Your task to perform on an android device: Open the calendar app, open the side menu, and click the "Day" option Image 0: 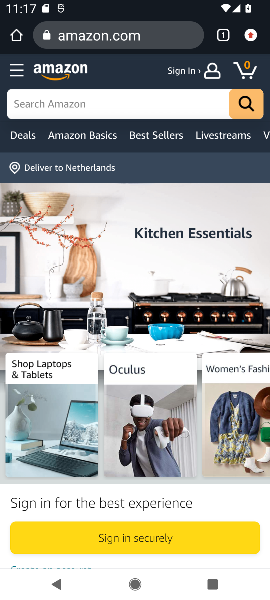
Step 0: press home button
Your task to perform on an android device: Open the calendar app, open the side menu, and click the "Day" option Image 1: 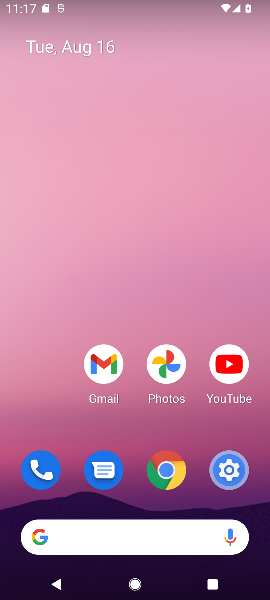
Step 1: drag from (45, 397) to (92, 16)
Your task to perform on an android device: Open the calendar app, open the side menu, and click the "Day" option Image 2: 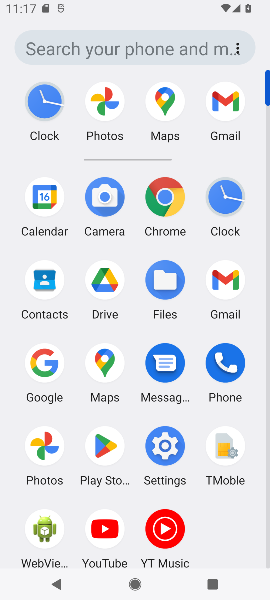
Step 2: click (48, 196)
Your task to perform on an android device: Open the calendar app, open the side menu, and click the "Day" option Image 3: 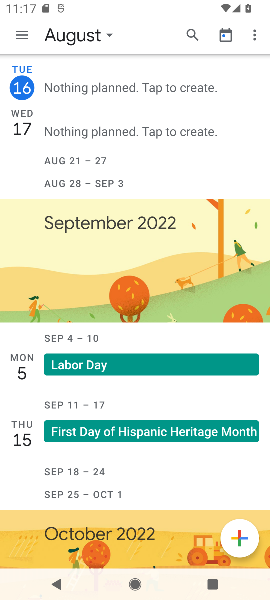
Step 3: click (23, 30)
Your task to perform on an android device: Open the calendar app, open the side menu, and click the "Day" option Image 4: 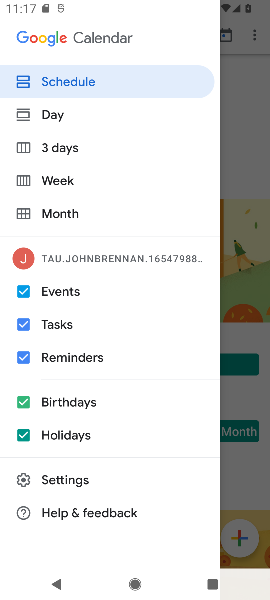
Step 4: click (26, 115)
Your task to perform on an android device: Open the calendar app, open the side menu, and click the "Day" option Image 5: 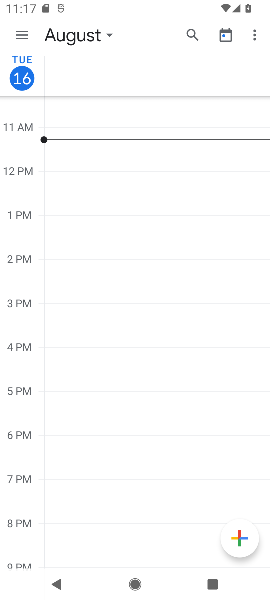
Step 5: task complete